Your task to perform on an android device: open the mobile data screen to see how much data has been used Image 0: 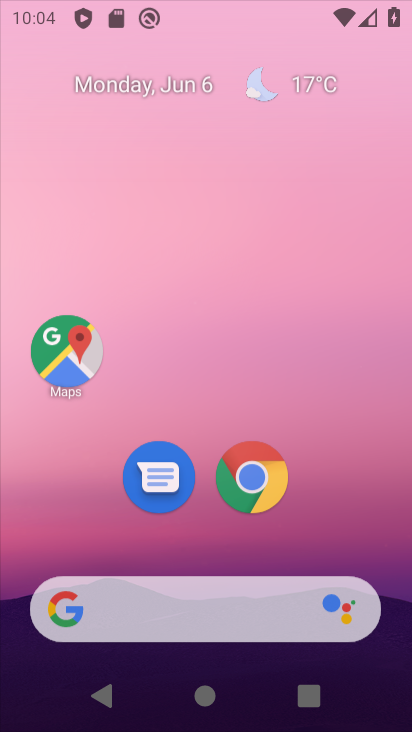
Step 0: press home button
Your task to perform on an android device: open the mobile data screen to see how much data has been used Image 1: 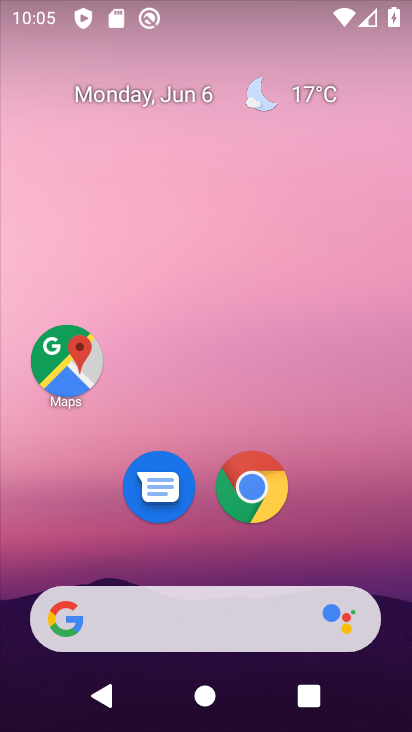
Step 1: drag from (337, 6) to (369, 507)
Your task to perform on an android device: open the mobile data screen to see how much data has been used Image 2: 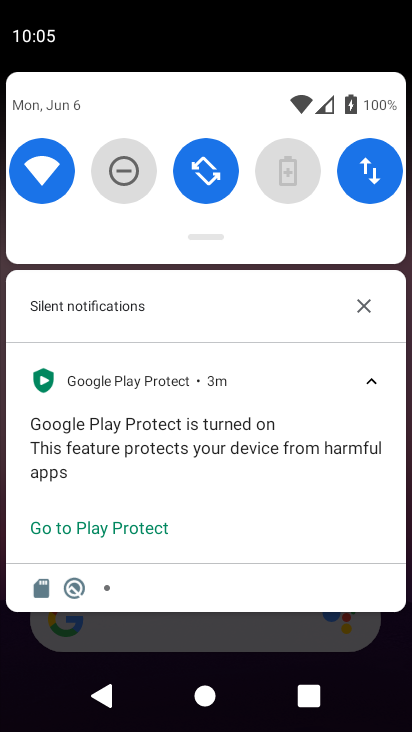
Step 2: click (367, 182)
Your task to perform on an android device: open the mobile data screen to see how much data has been used Image 3: 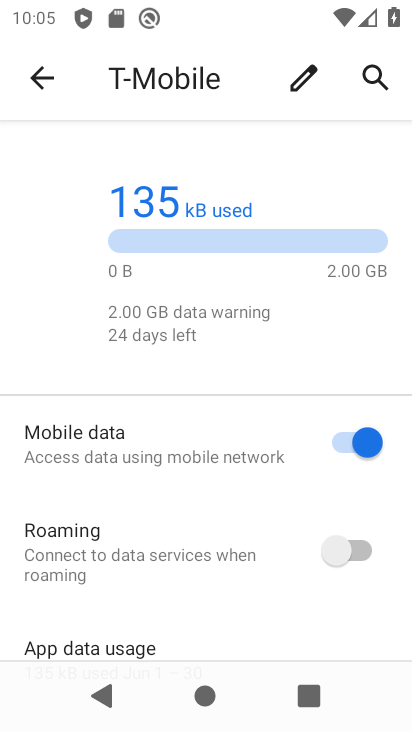
Step 3: task complete